Your task to perform on an android device: Go to Android settings Image 0: 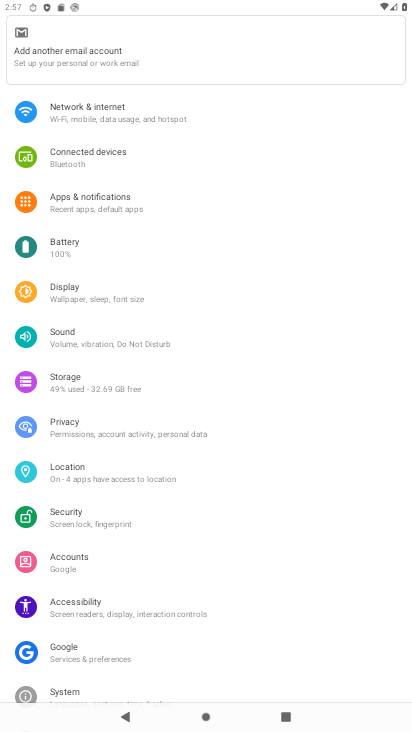
Step 0: press home button
Your task to perform on an android device: Go to Android settings Image 1: 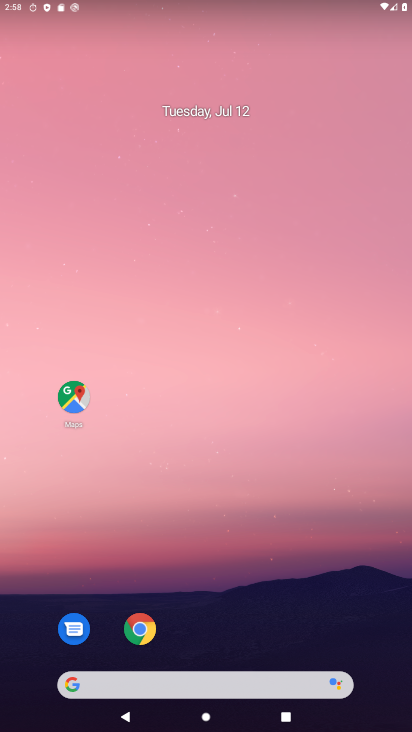
Step 1: drag from (235, 598) to (239, 532)
Your task to perform on an android device: Go to Android settings Image 2: 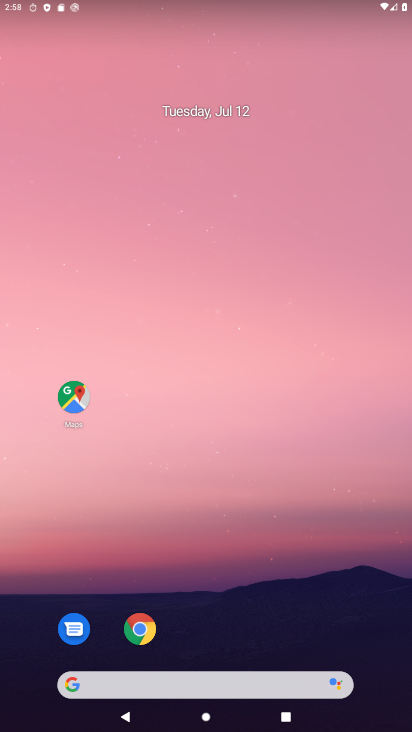
Step 2: drag from (267, 292) to (290, 95)
Your task to perform on an android device: Go to Android settings Image 3: 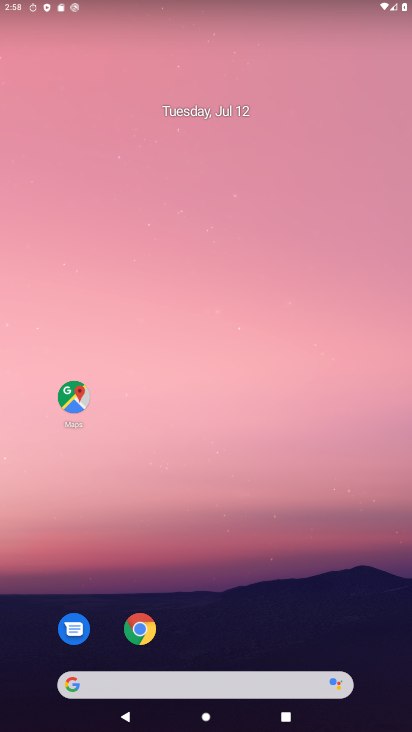
Step 3: drag from (226, 607) to (289, 11)
Your task to perform on an android device: Go to Android settings Image 4: 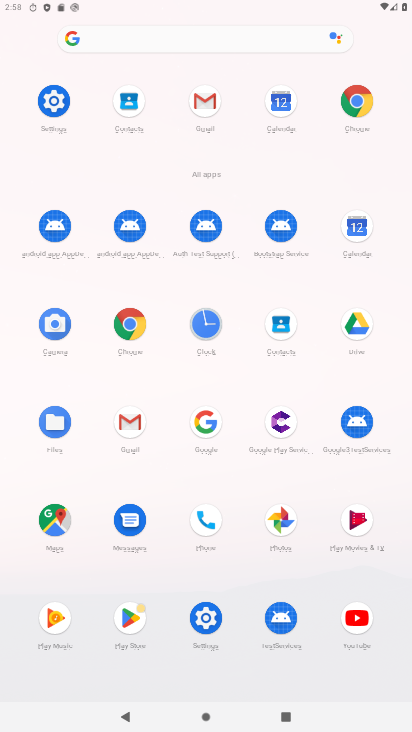
Step 4: click (203, 614)
Your task to perform on an android device: Go to Android settings Image 5: 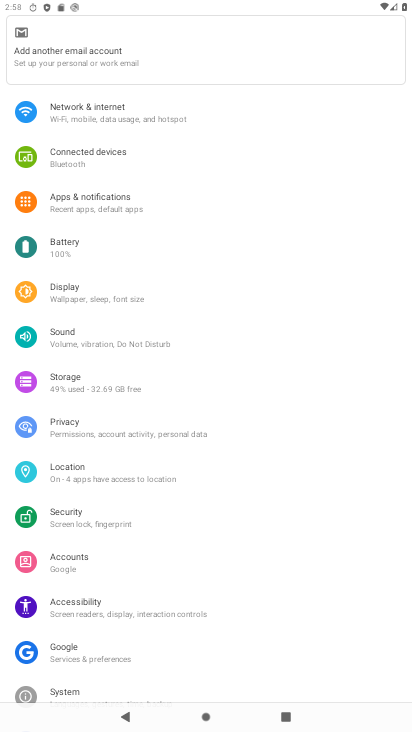
Step 5: drag from (236, 633) to (270, 289)
Your task to perform on an android device: Go to Android settings Image 6: 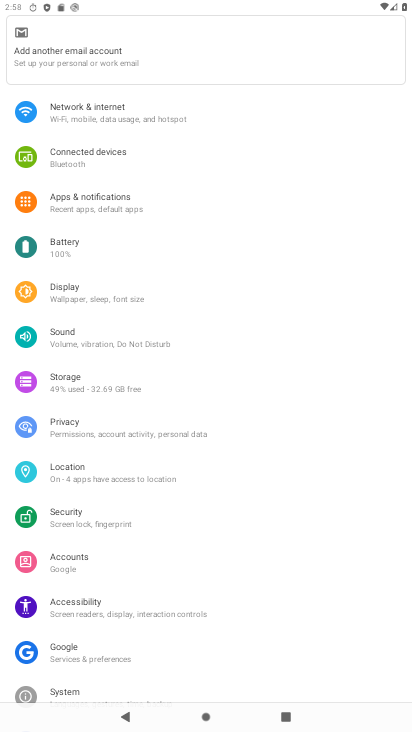
Step 6: drag from (195, 603) to (267, 194)
Your task to perform on an android device: Go to Android settings Image 7: 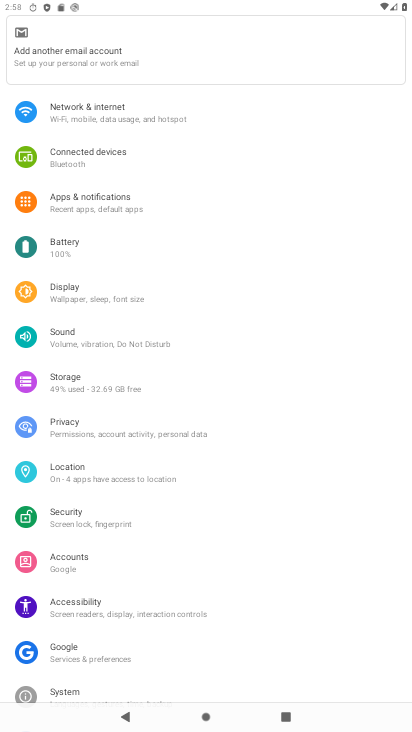
Step 7: drag from (222, 587) to (329, 147)
Your task to perform on an android device: Go to Android settings Image 8: 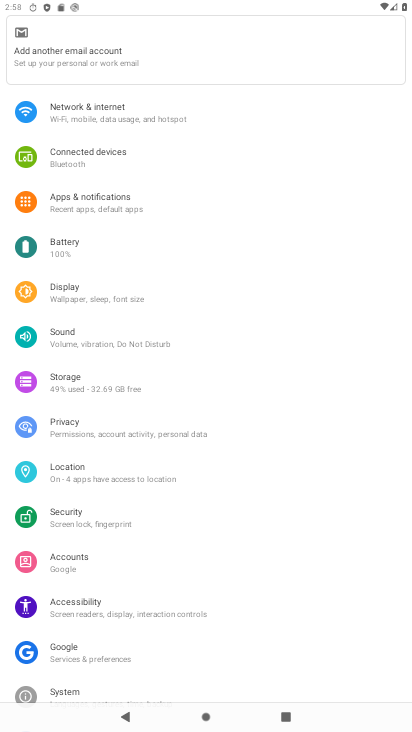
Step 8: drag from (286, 646) to (388, 116)
Your task to perform on an android device: Go to Android settings Image 9: 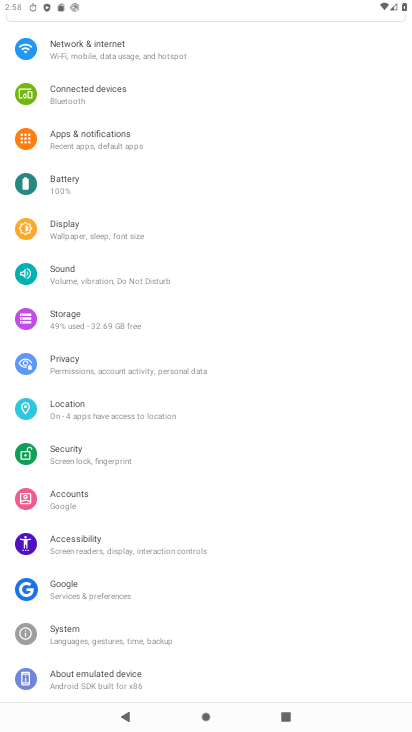
Step 9: click (120, 683)
Your task to perform on an android device: Go to Android settings Image 10: 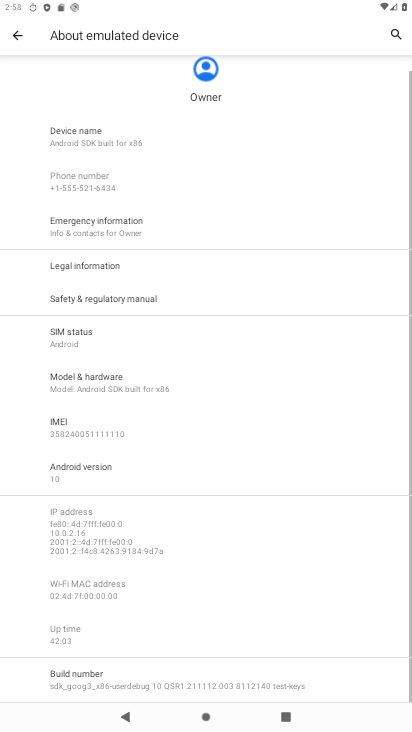
Step 10: click (86, 462)
Your task to perform on an android device: Go to Android settings Image 11: 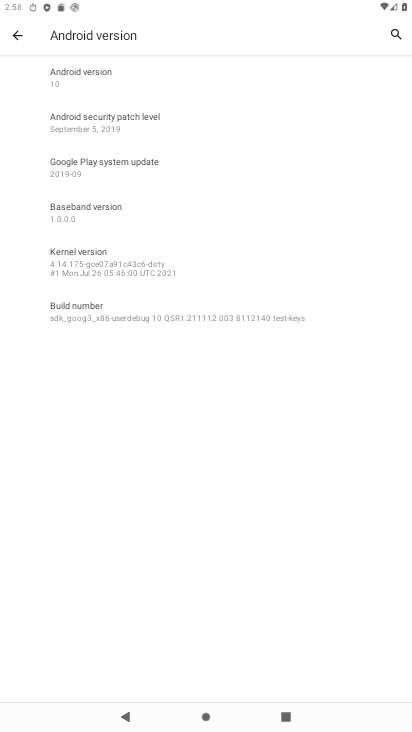
Step 11: task complete